Your task to perform on an android device: Go to accessibility settings Image 0: 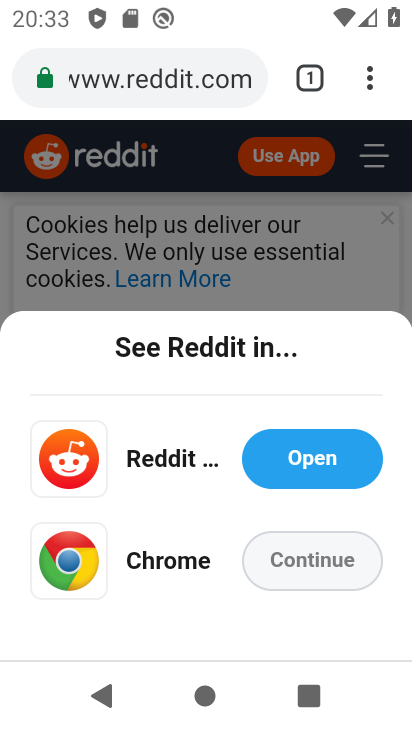
Step 0: press home button
Your task to perform on an android device: Go to accessibility settings Image 1: 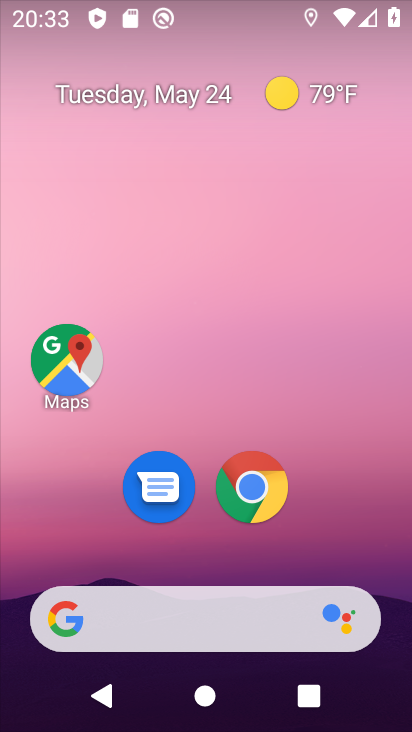
Step 1: drag from (265, 551) to (312, 109)
Your task to perform on an android device: Go to accessibility settings Image 2: 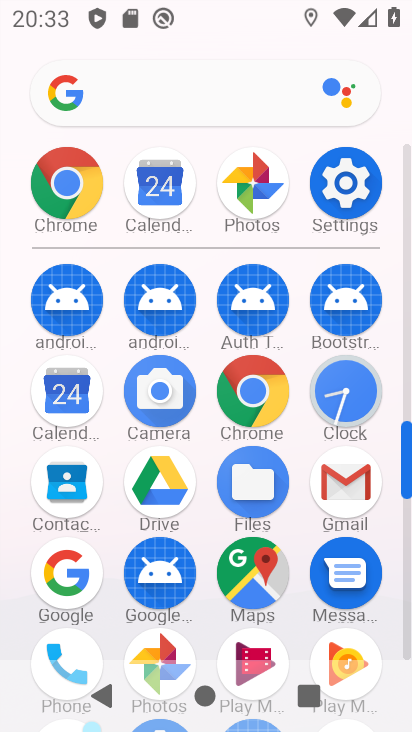
Step 2: click (348, 187)
Your task to perform on an android device: Go to accessibility settings Image 3: 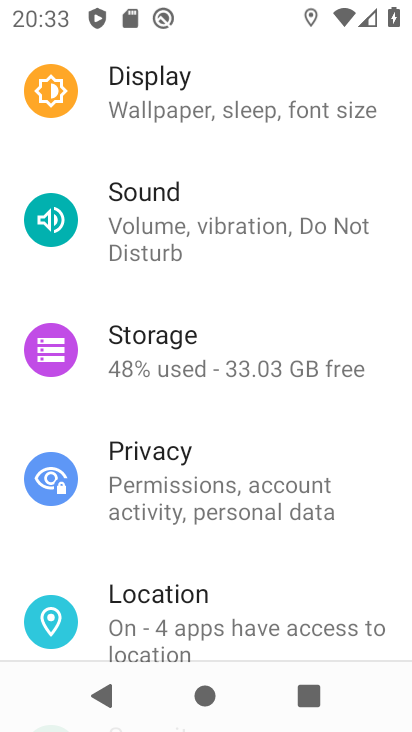
Step 3: drag from (275, 593) to (257, 110)
Your task to perform on an android device: Go to accessibility settings Image 4: 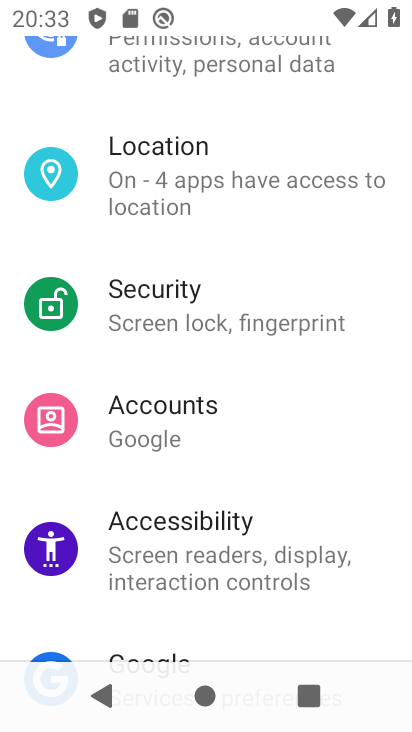
Step 4: click (108, 548)
Your task to perform on an android device: Go to accessibility settings Image 5: 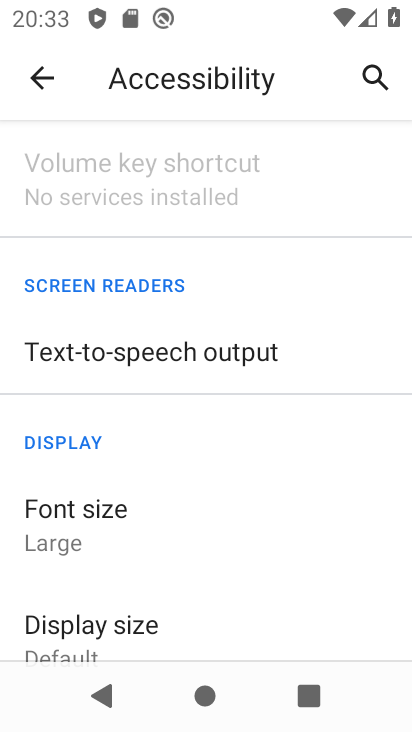
Step 5: task complete